Your task to perform on an android device: toggle notifications settings in the gmail app Image 0: 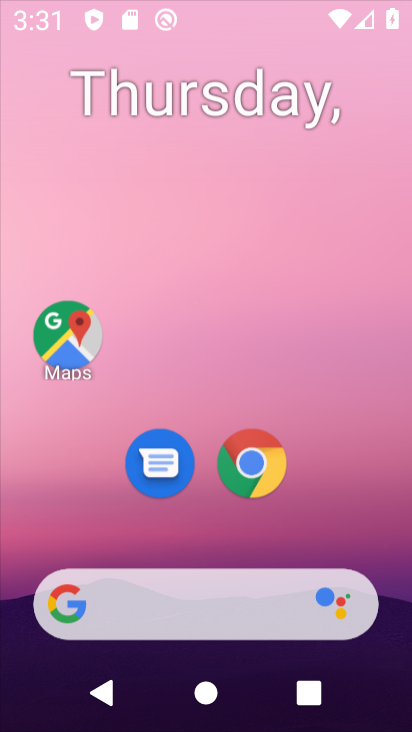
Step 0: click (145, 326)
Your task to perform on an android device: toggle notifications settings in the gmail app Image 1: 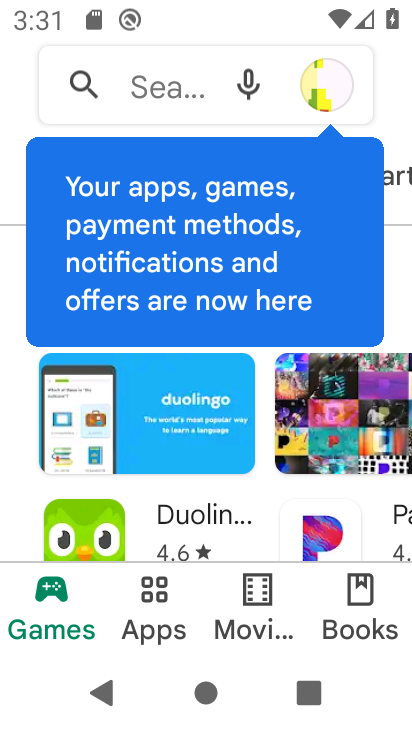
Step 1: press home button
Your task to perform on an android device: toggle notifications settings in the gmail app Image 2: 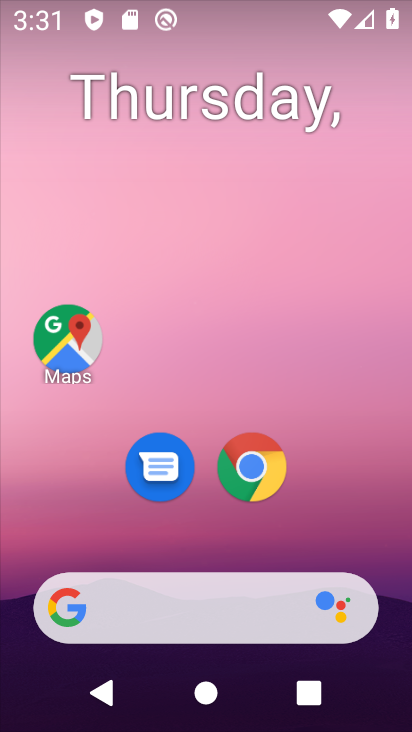
Step 2: drag from (215, 326) to (255, 0)
Your task to perform on an android device: toggle notifications settings in the gmail app Image 3: 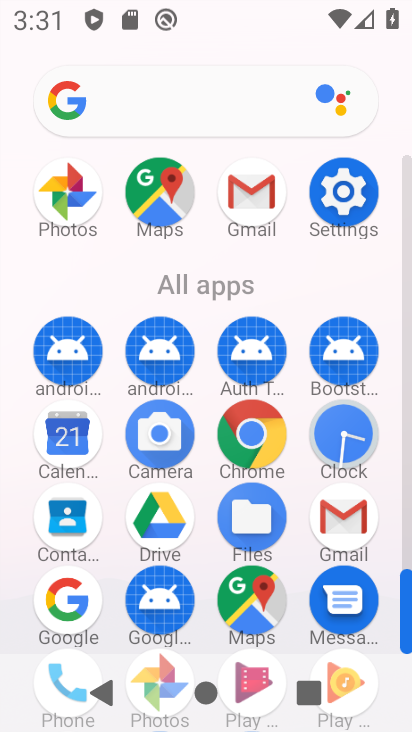
Step 3: click (337, 510)
Your task to perform on an android device: toggle notifications settings in the gmail app Image 4: 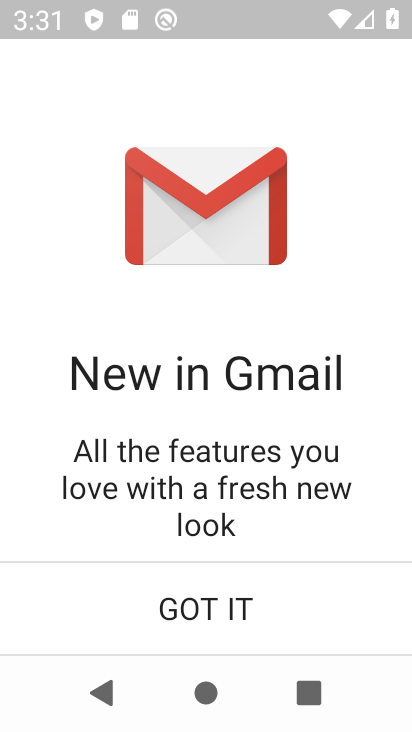
Step 4: click (213, 623)
Your task to perform on an android device: toggle notifications settings in the gmail app Image 5: 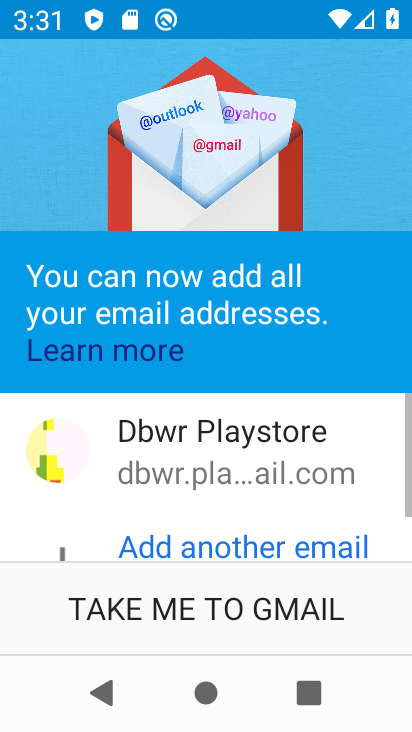
Step 5: click (223, 615)
Your task to perform on an android device: toggle notifications settings in the gmail app Image 6: 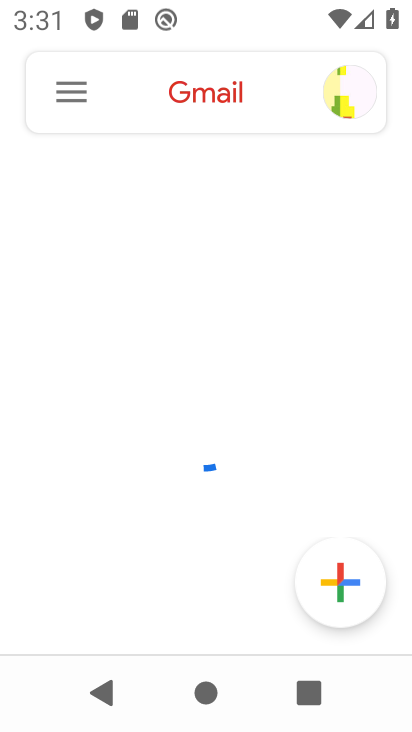
Step 6: click (64, 98)
Your task to perform on an android device: toggle notifications settings in the gmail app Image 7: 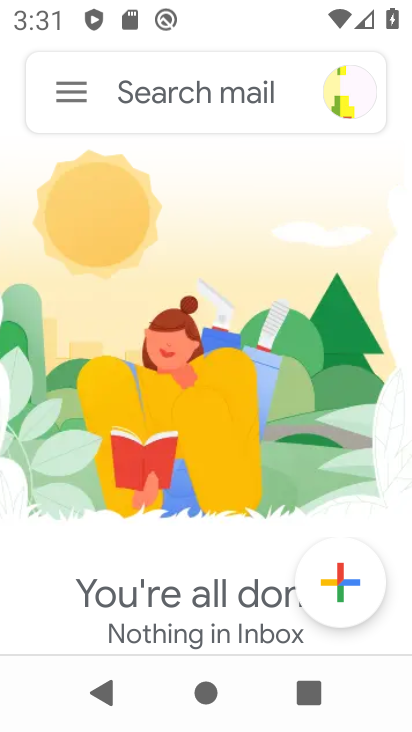
Step 7: click (72, 114)
Your task to perform on an android device: toggle notifications settings in the gmail app Image 8: 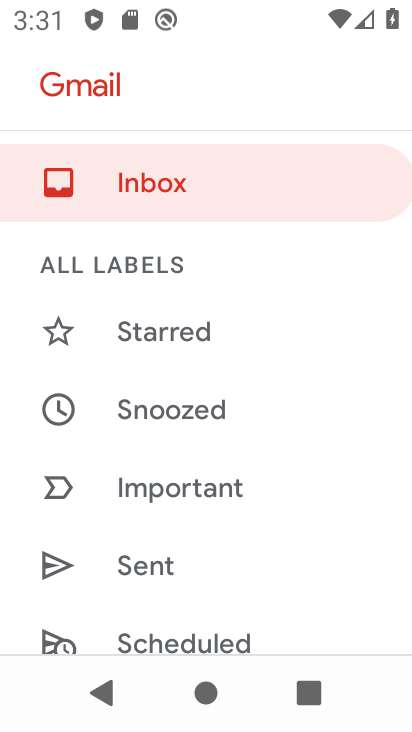
Step 8: drag from (120, 558) to (251, 20)
Your task to perform on an android device: toggle notifications settings in the gmail app Image 9: 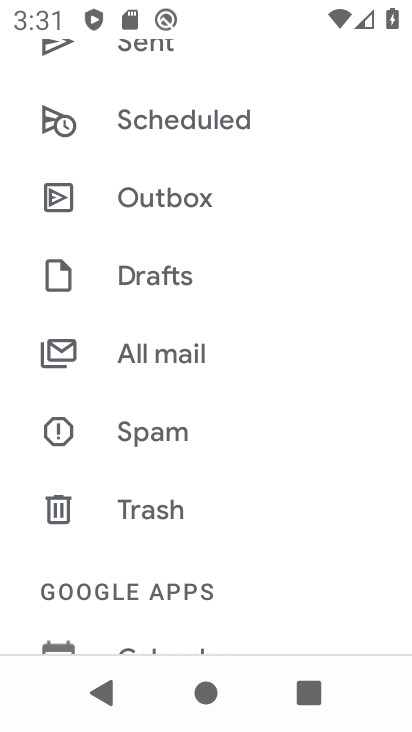
Step 9: drag from (112, 519) to (244, 33)
Your task to perform on an android device: toggle notifications settings in the gmail app Image 10: 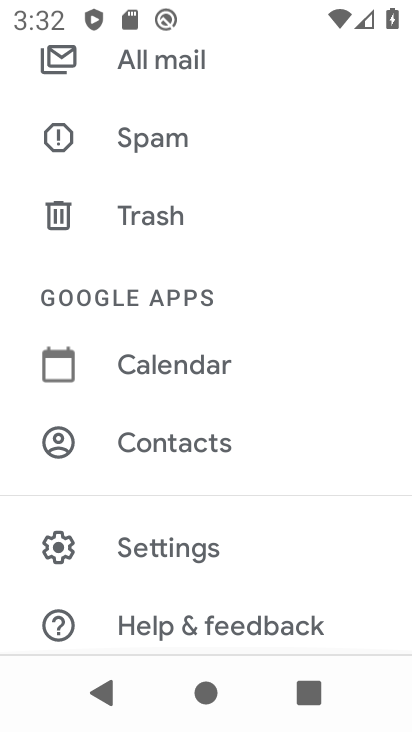
Step 10: click (161, 529)
Your task to perform on an android device: toggle notifications settings in the gmail app Image 11: 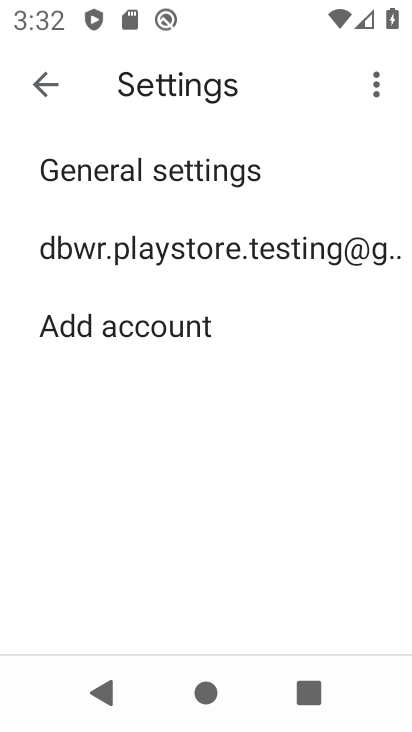
Step 11: click (172, 182)
Your task to perform on an android device: toggle notifications settings in the gmail app Image 12: 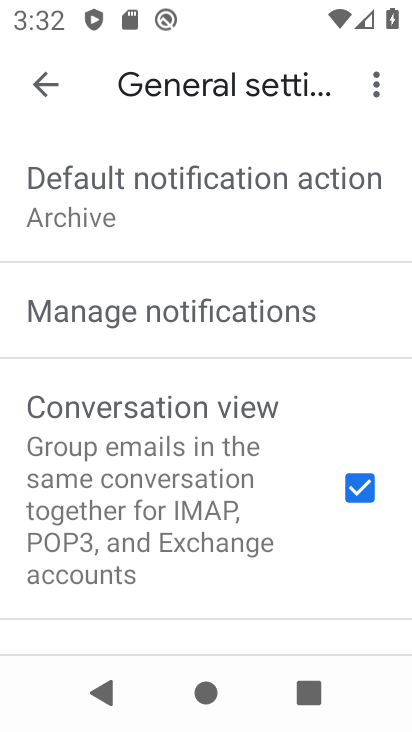
Step 12: click (164, 324)
Your task to perform on an android device: toggle notifications settings in the gmail app Image 13: 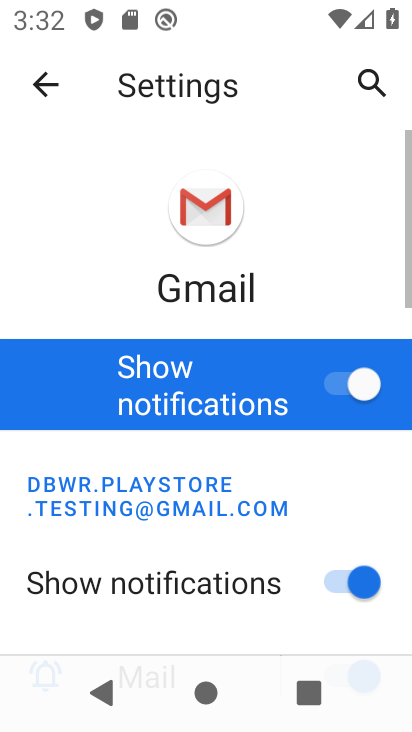
Step 13: click (316, 372)
Your task to perform on an android device: toggle notifications settings in the gmail app Image 14: 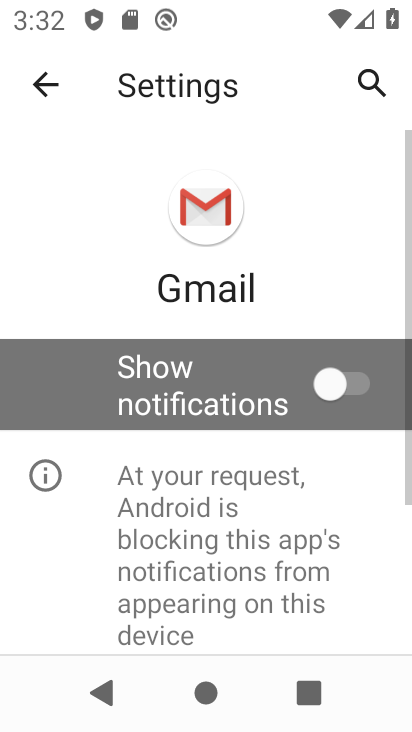
Step 14: task complete